Your task to perform on an android device: turn on the 24-hour format for clock Image 0: 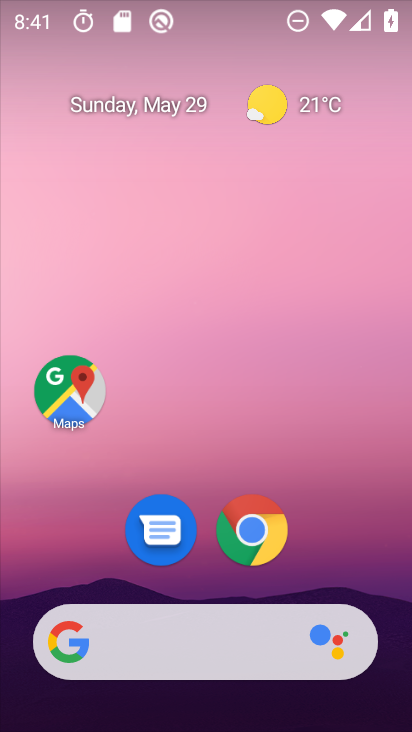
Step 0: press home button
Your task to perform on an android device: turn on the 24-hour format for clock Image 1: 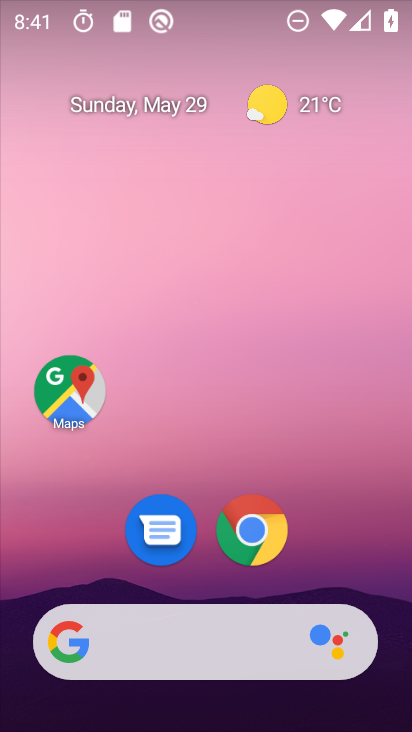
Step 1: drag from (256, 684) to (262, 222)
Your task to perform on an android device: turn on the 24-hour format for clock Image 2: 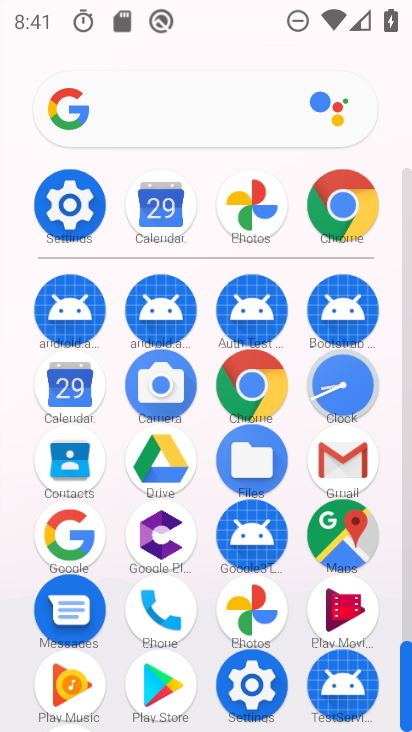
Step 2: click (325, 405)
Your task to perform on an android device: turn on the 24-hour format for clock Image 3: 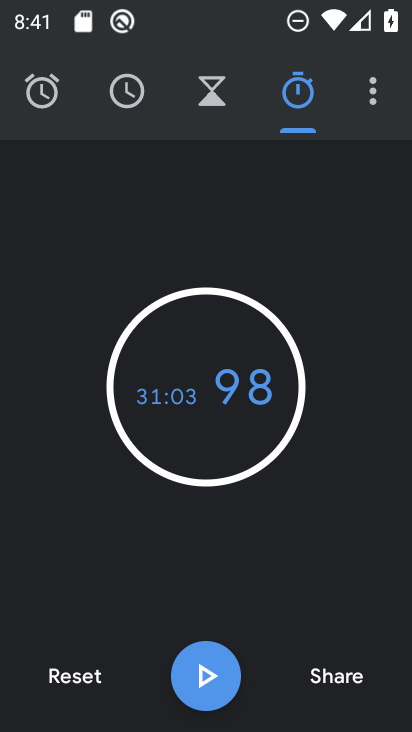
Step 3: click (372, 101)
Your task to perform on an android device: turn on the 24-hour format for clock Image 4: 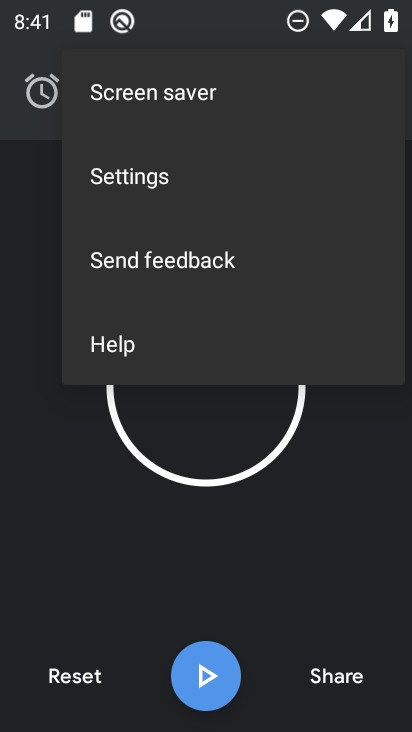
Step 4: click (155, 158)
Your task to perform on an android device: turn on the 24-hour format for clock Image 5: 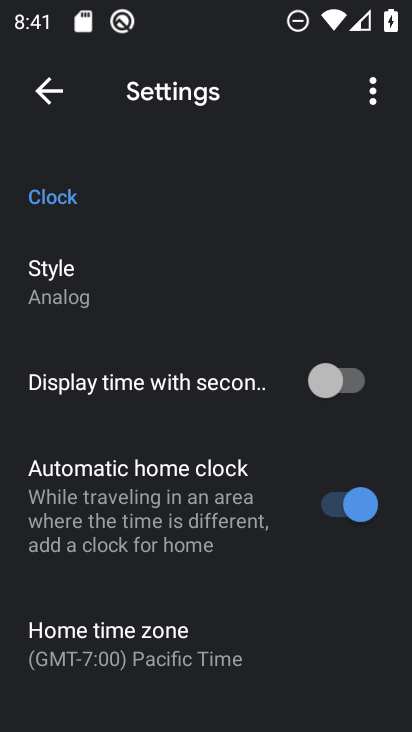
Step 5: drag from (134, 606) to (185, 259)
Your task to perform on an android device: turn on the 24-hour format for clock Image 6: 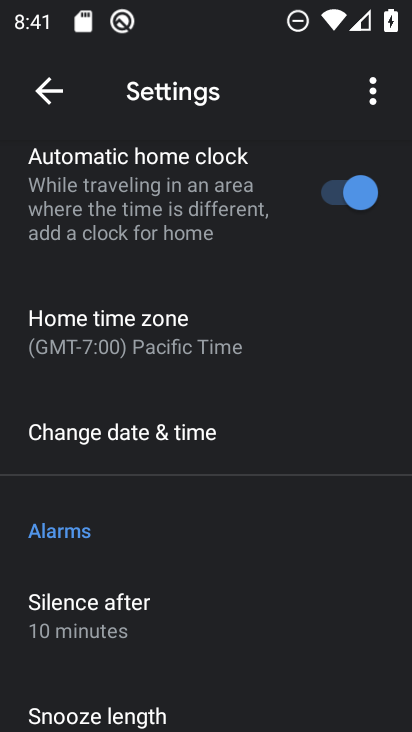
Step 6: click (140, 431)
Your task to perform on an android device: turn on the 24-hour format for clock Image 7: 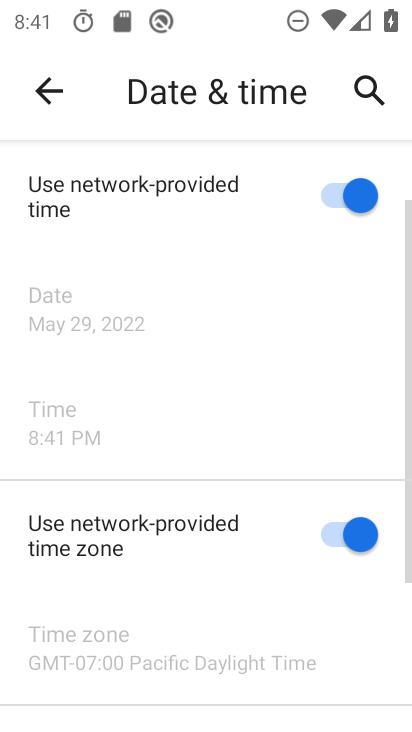
Step 7: drag from (177, 625) to (231, 301)
Your task to perform on an android device: turn on the 24-hour format for clock Image 8: 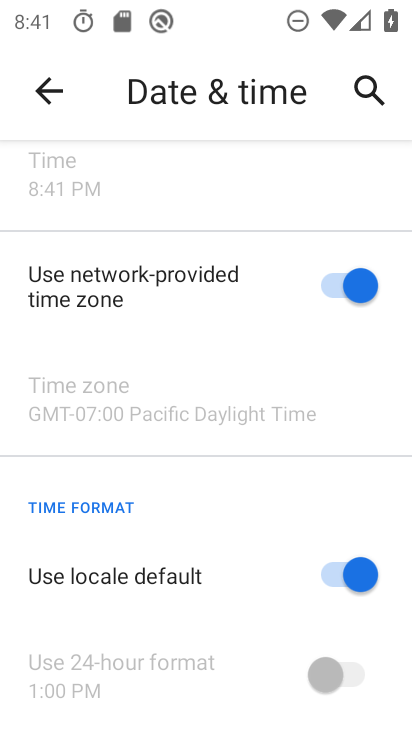
Step 8: click (350, 570)
Your task to perform on an android device: turn on the 24-hour format for clock Image 9: 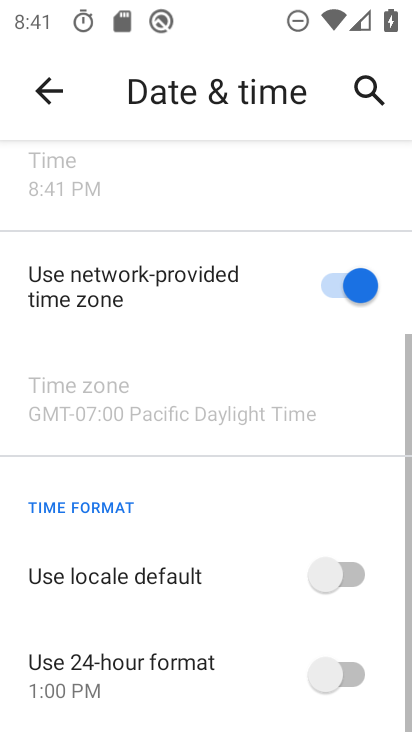
Step 9: click (338, 674)
Your task to perform on an android device: turn on the 24-hour format for clock Image 10: 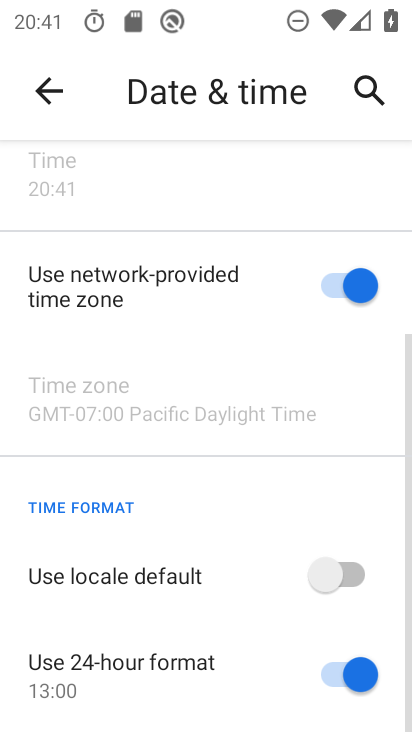
Step 10: task complete